Your task to perform on an android device: turn off priority inbox in the gmail app Image 0: 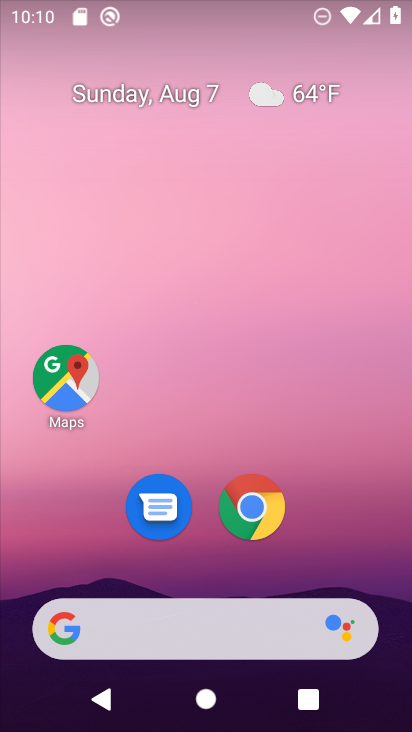
Step 0: drag from (355, 527) to (389, 54)
Your task to perform on an android device: turn off priority inbox in the gmail app Image 1: 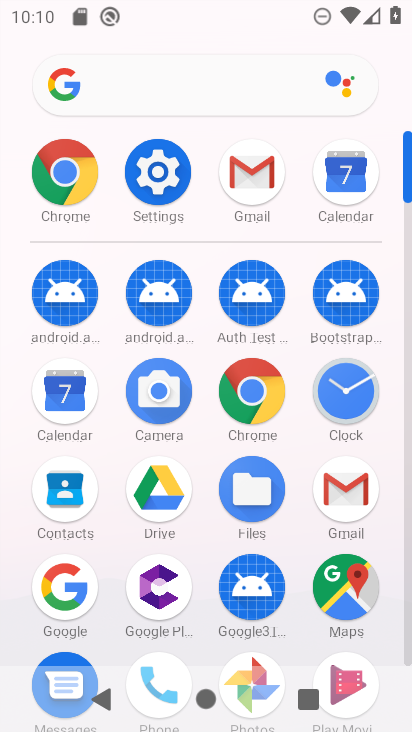
Step 1: click (337, 487)
Your task to perform on an android device: turn off priority inbox in the gmail app Image 2: 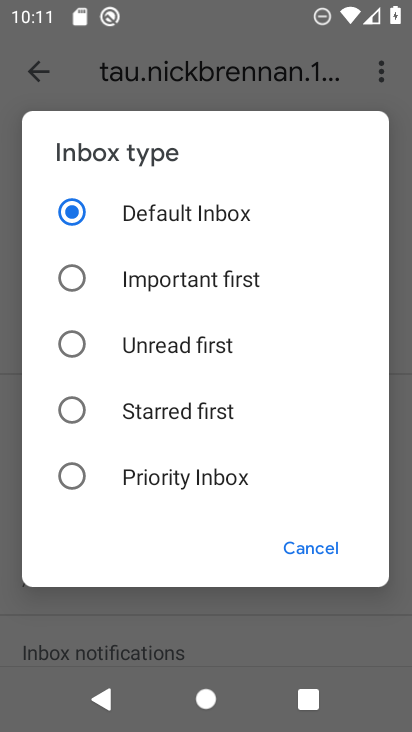
Step 2: task complete